Your task to perform on an android device: Go to privacy settings Image 0: 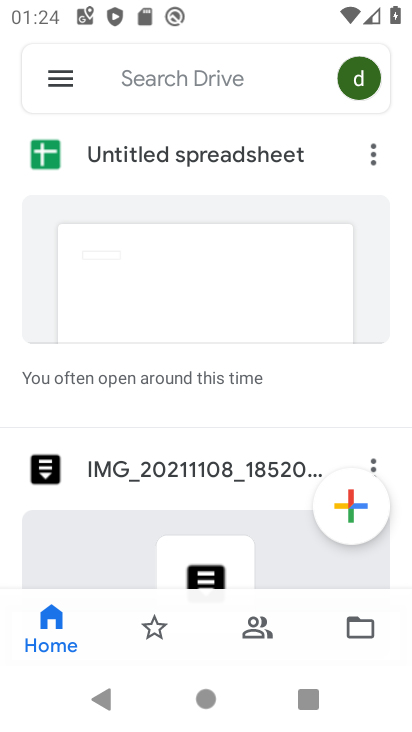
Step 0: press home button
Your task to perform on an android device: Go to privacy settings Image 1: 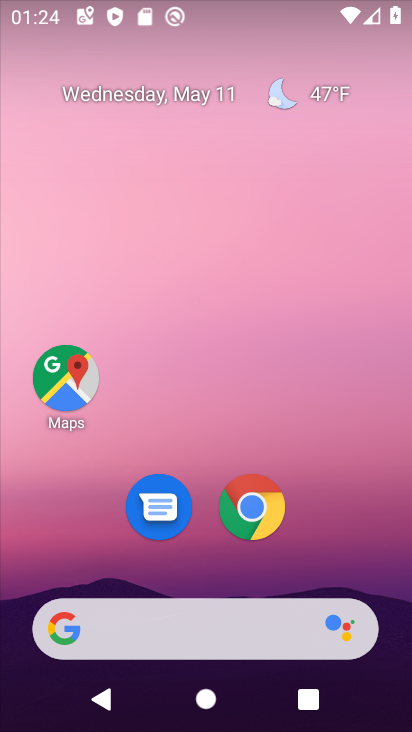
Step 1: drag from (351, 522) to (140, 3)
Your task to perform on an android device: Go to privacy settings Image 2: 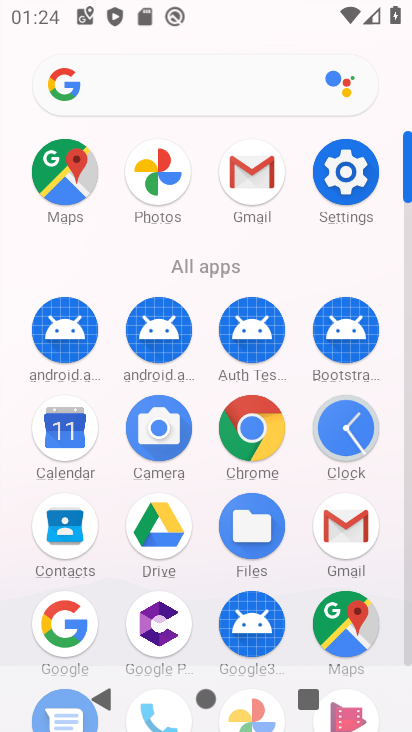
Step 2: click (353, 165)
Your task to perform on an android device: Go to privacy settings Image 3: 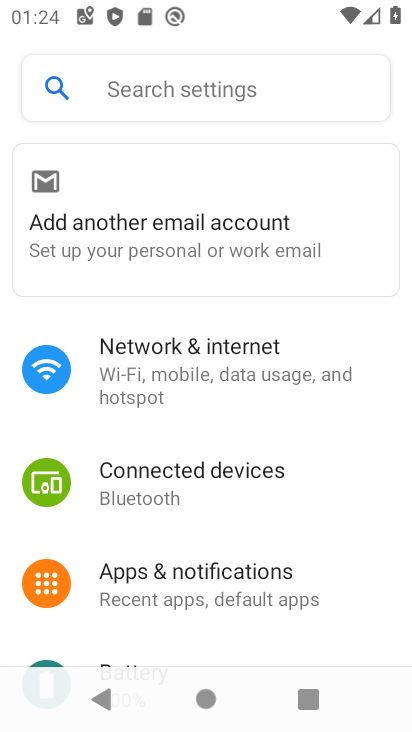
Step 3: drag from (245, 516) to (204, 295)
Your task to perform on an android device: Go to privacy settings Image 4: 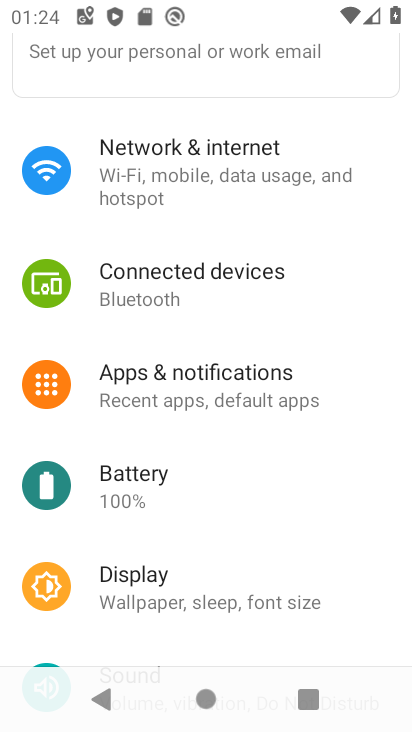
Step 4: drag from (243, 503) to (193, 221)
Your task to perform on an android device: Go to privacy settings Image 5: 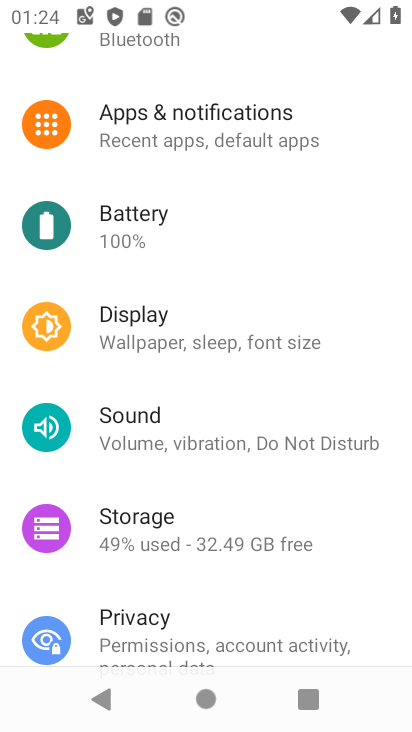
Step 5: click (135, 612)
Your task to perform on an android device: Go to privacy settings Image 6: 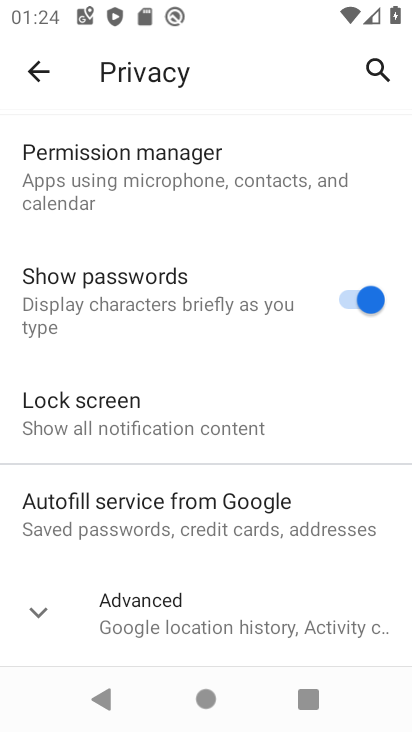
Step 6: task complete